Your task to perform on an android device: Check the weather Image 0: 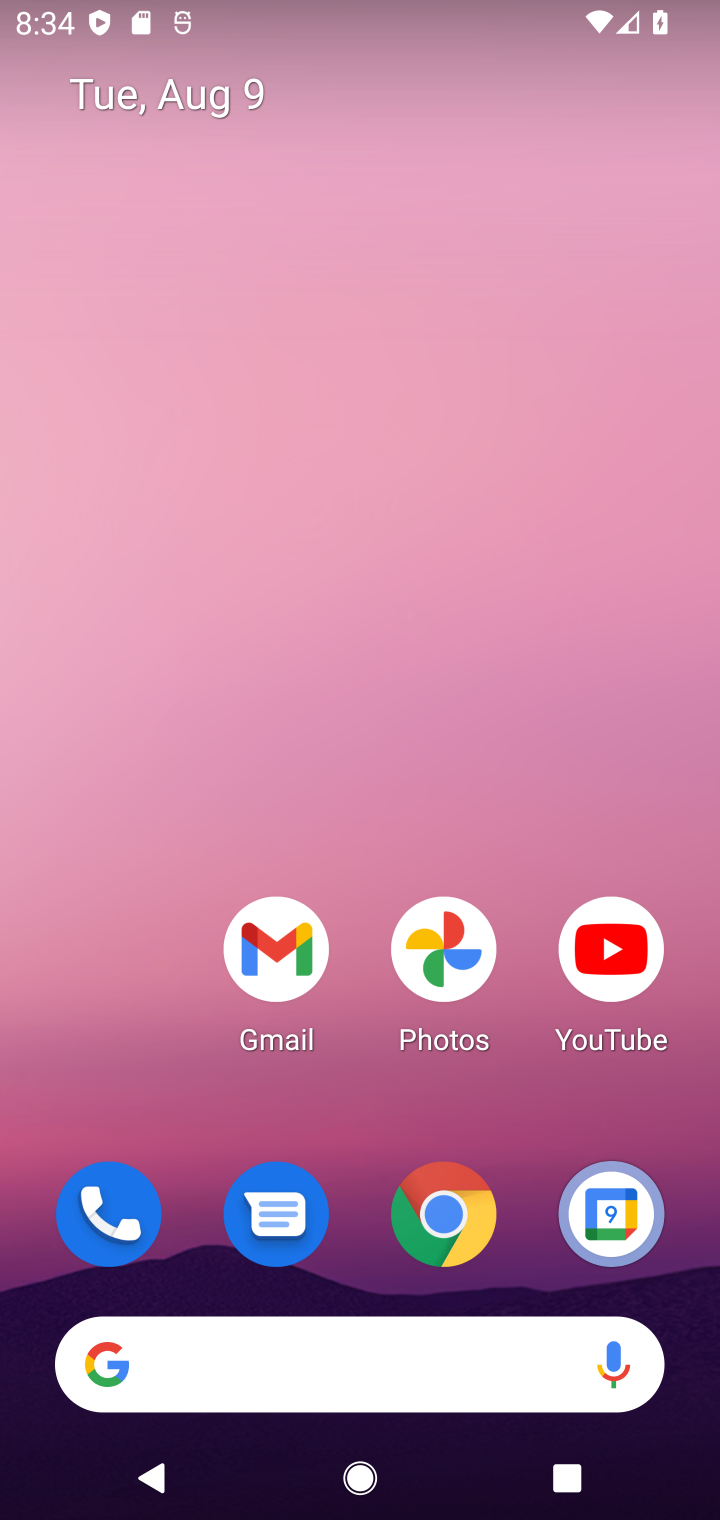
Step 0: click (206, 1363)
Your task to perform on an android device: Check the weather Image 1: 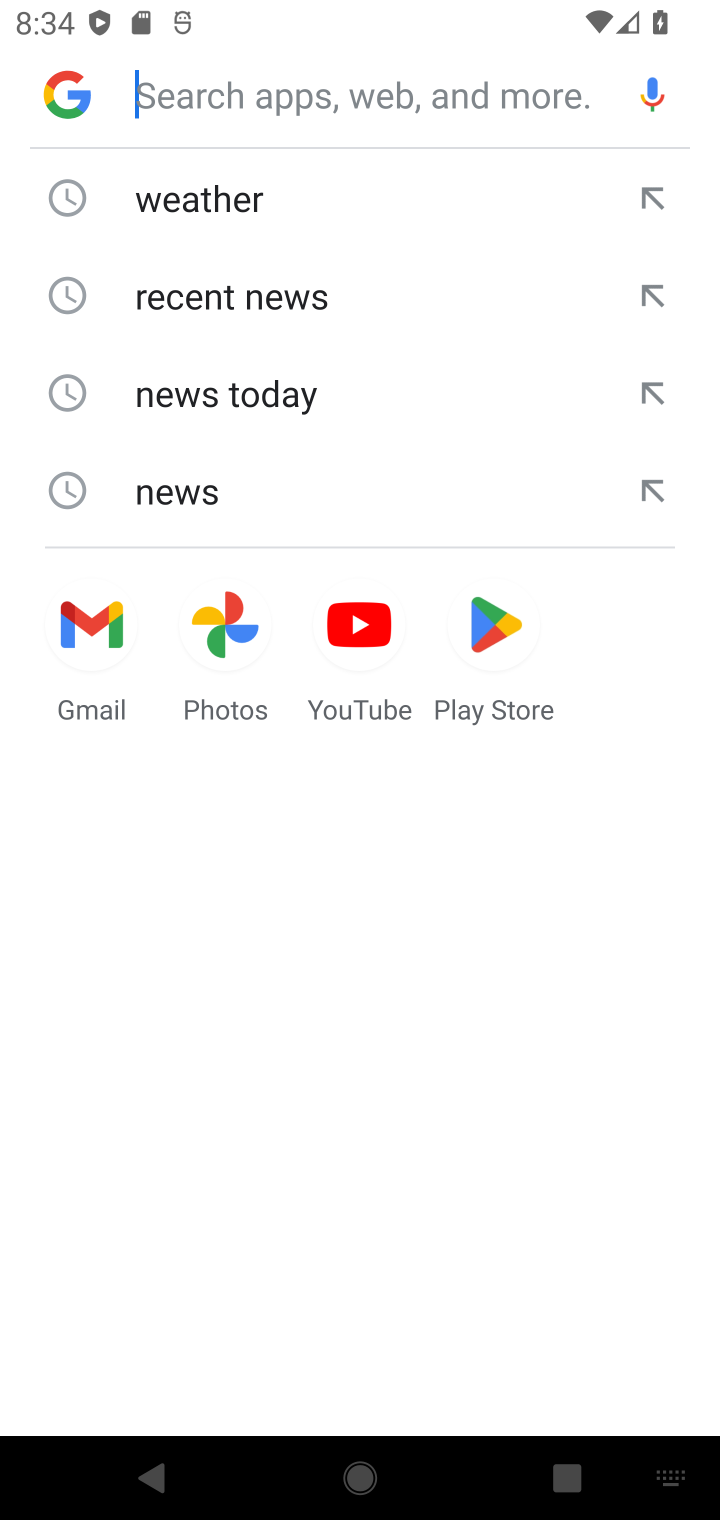
Step 1: type "Check the weather"
Your task to perform on an android device: Check the weather Image 2: 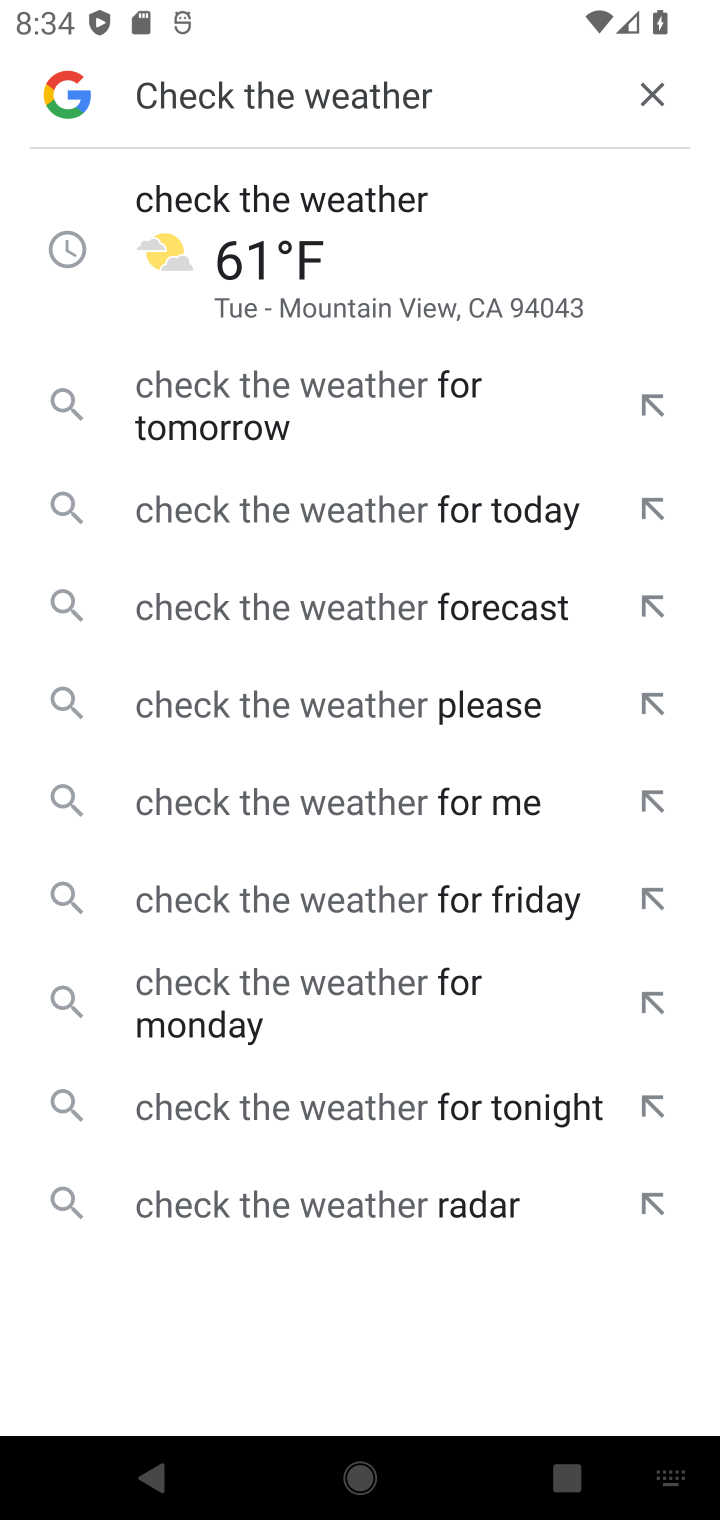
Step 2: task complete